Your task to perform on an android device: change your default location settings in chrome Image 0: 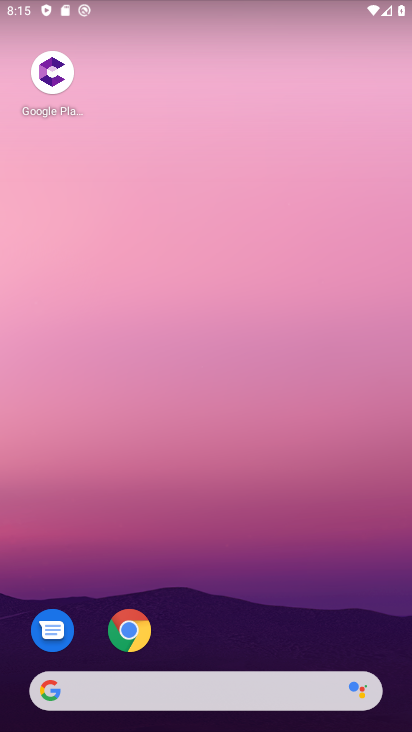
Step 0: click (128, 618)
Your task to perform on an android device: change your default location settings in chrome Image 1: 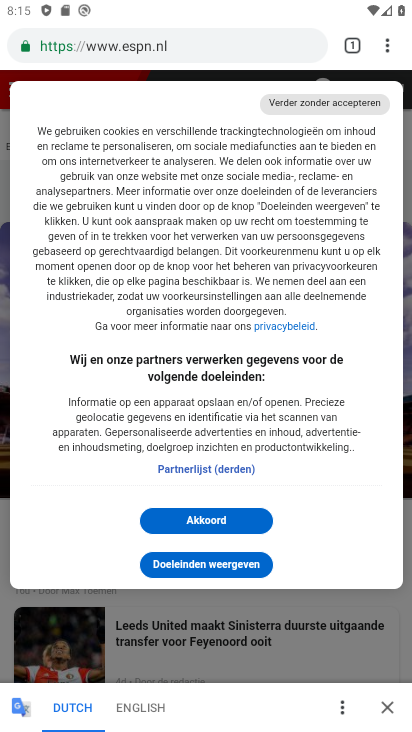
Step 1: click (391, 50)
Your task to perform on an android device: change your default location settings in chrome Image 2: 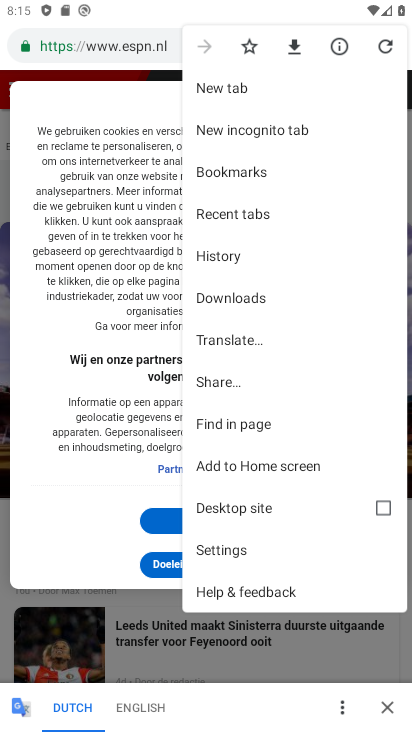
Step 2: click (218, 547)
Your task to perform on an android device: change your default location settings in chrome Image 3: 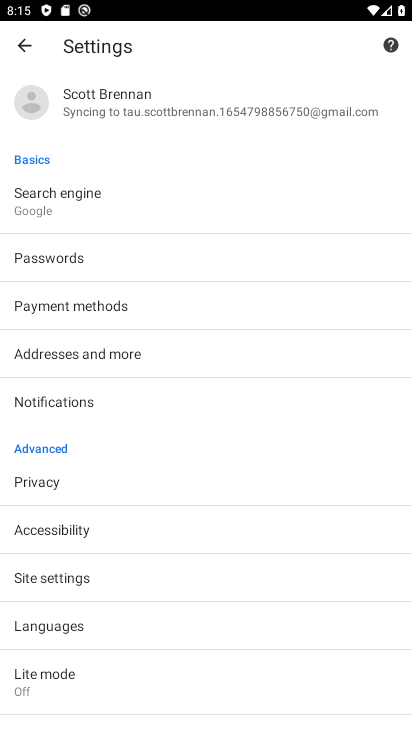
Step 3: click (145, 587)
Your task to perform on an android device: change your default location settings in chrome Image 4: 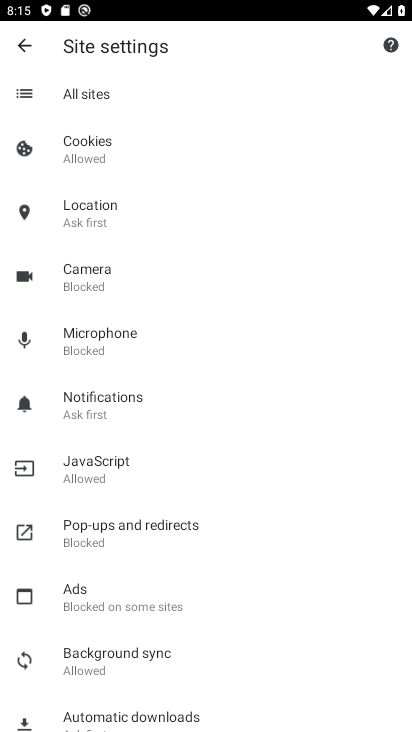
Step 4: click (169, 218)
Your task to perform on an android device: change your default location settings in chrome Image 5: 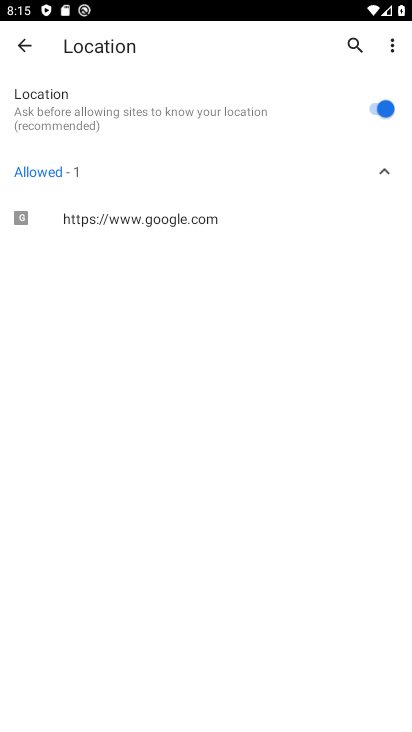
Step 5: click (378, 101)
Your task to perform on an android device: change your default location settings in chrome Image 6: 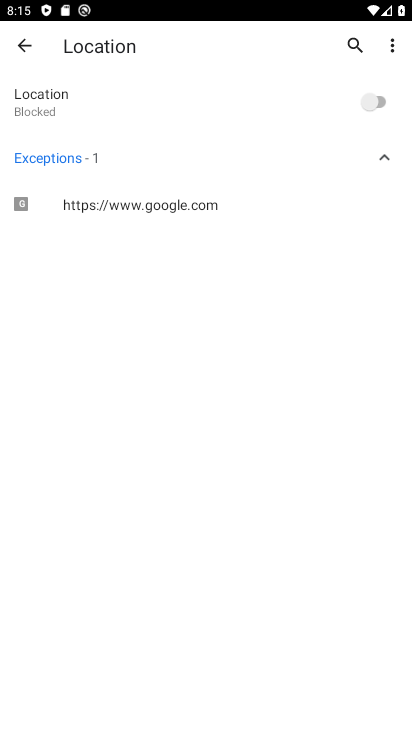
Step 6: task complete